Your task to perform on an android device: Show me the alarms in the clock app Image 0: 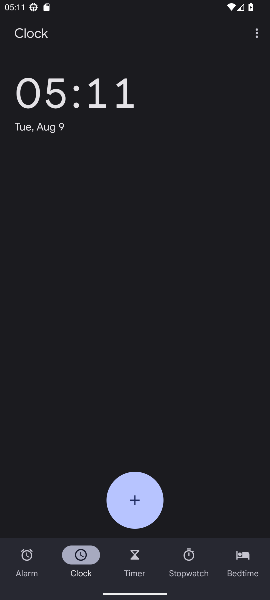
Step 0: press home button
Your task to perform on an android device: Show me the alarms in the clock app Image 1: 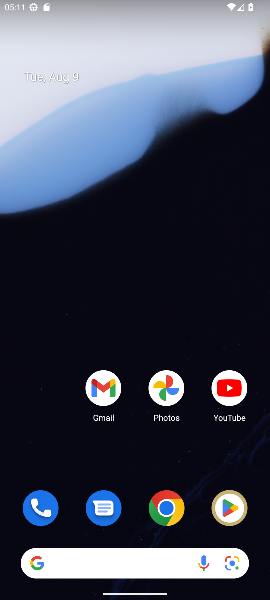
Step 1: drag from (107, 461) to (160, 2)
Your task to perform on an android device: Show me the alarms in the clock app Image 2: 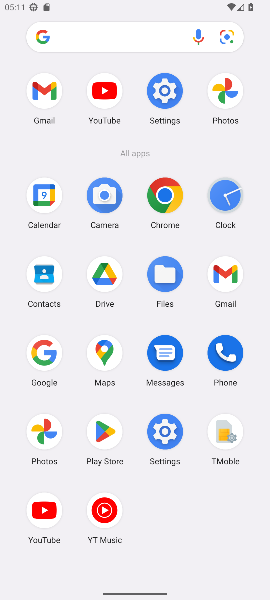
Step 2: click (227, 196)
Your task to perform on an android device: Show me the alarms in the clock app Image 3: 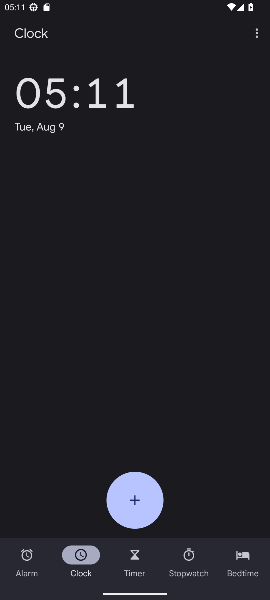
Step 3: click (25, 567)
Your task to perform on an android device: Show me the alarms in the clock app Image 4: 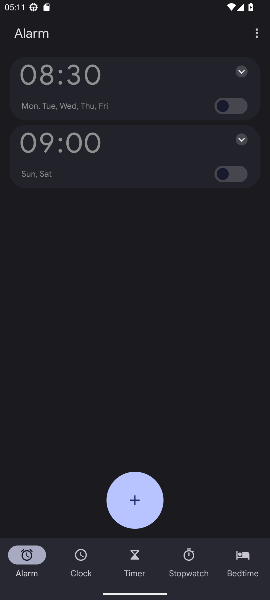
Step 4: task complete